Your task to perform on an android device: delete a single message in the gmail app Image 0: 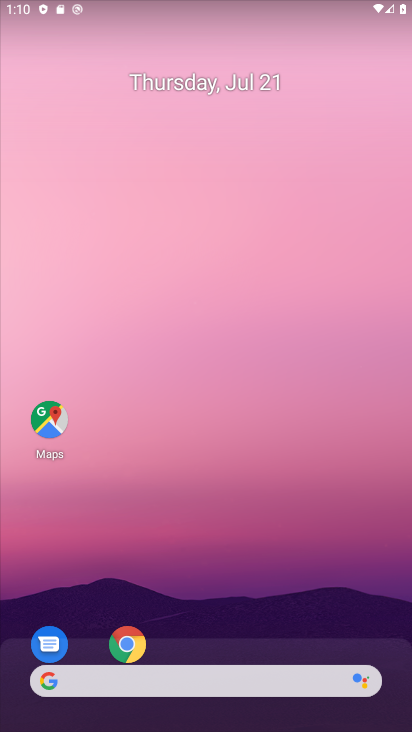
Step 0: drag from (277, 645) to (224, 138)
Your task to perform on an android device: delete a single message in the gmail app Image 1: 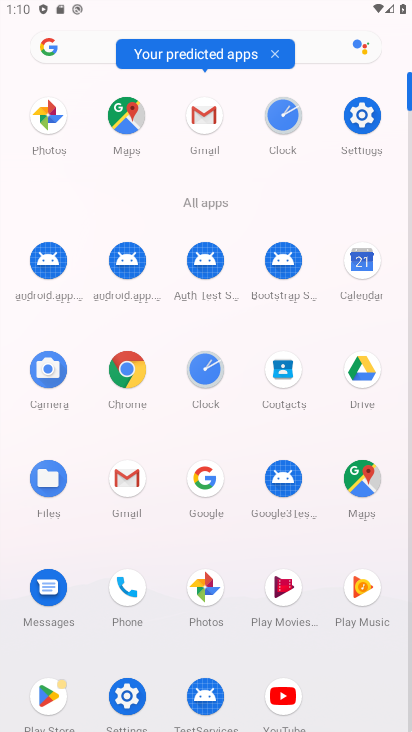
Step 1: click (205, 109)
Your task to perform on an android device: delete a single message in the gmail app Image 2: 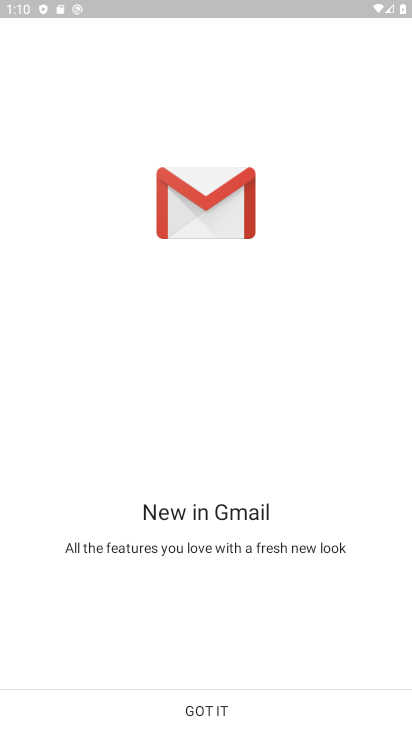
Step 2: click (229, 702)
Your task to perform on an android device: delete a single message in the gmail app Image 3: 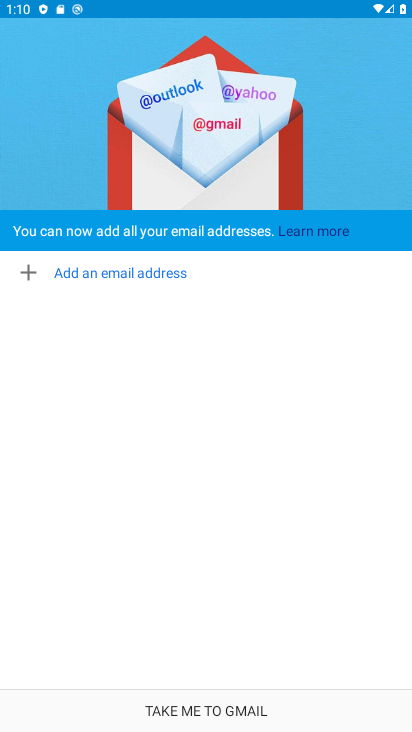
Step 3: click (191, 721)
Your task to perform on an android device: delete a single message in the gmail app Image 4: 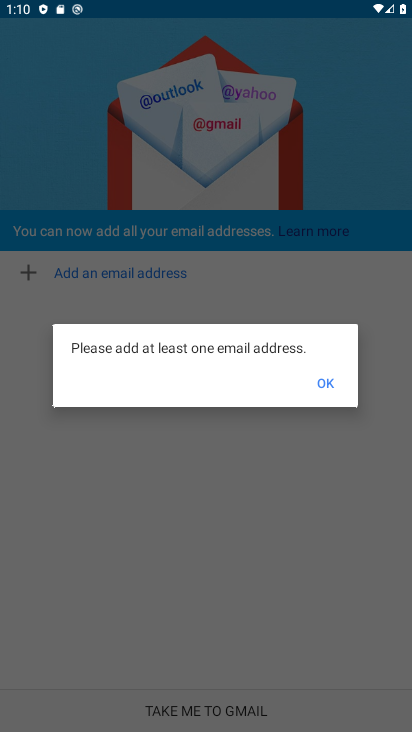
Step 4: task complete